Your task to perform on an android device: Open the Play Movies app and select the watchlist tab. Image 0: 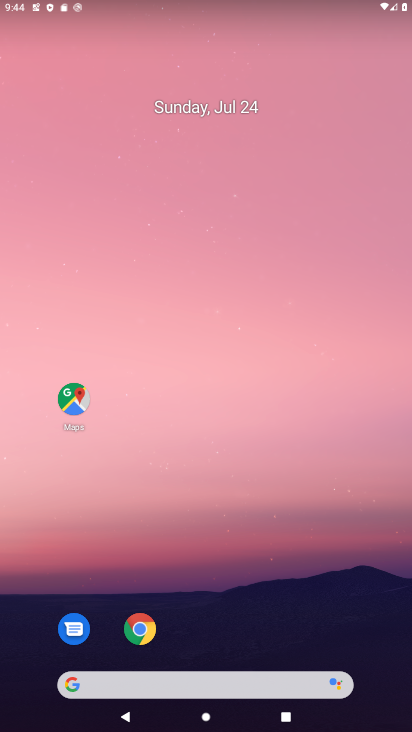
Step 0: drag from (312, 654) to (276, 81)
Your task to perform on an android device: Open the Play Movies app and select the watchlist tab. Image 1: 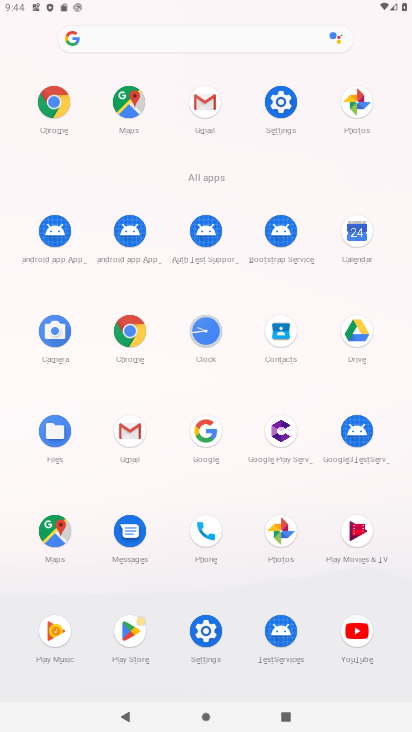
Step 1: click (363, 541)
Your task to perform on an android device: Open the Play Movies app and select the watchlist tab. Image 2: 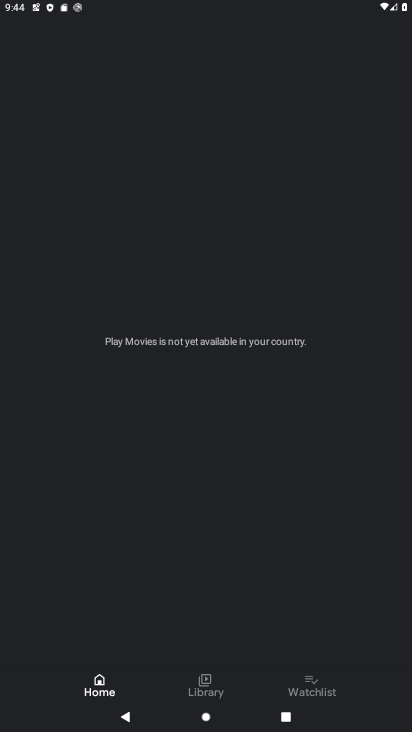
Step 2: click (321, 701)
Your task to perform on an android device: Open the Play Movies app and select the watchlist tab. Image 3: 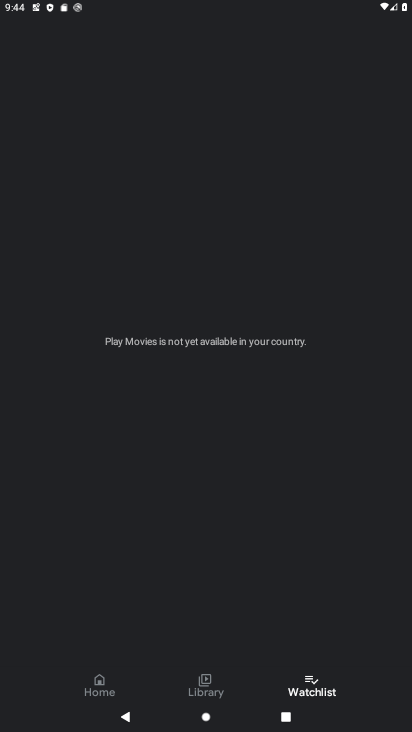
Step 3: task complete